Your task to perform on an android device: Go to Google maps Image 0: 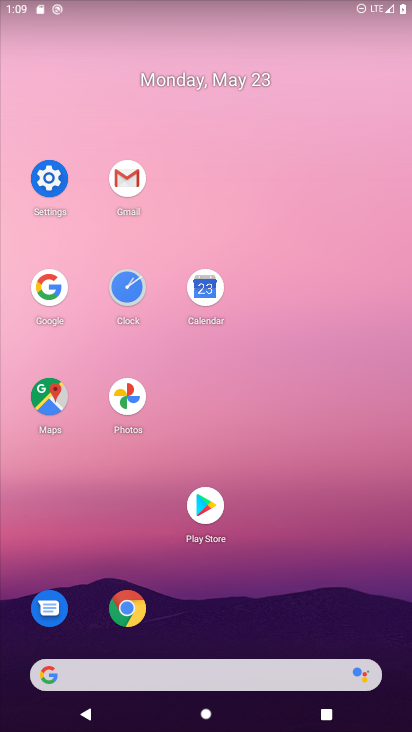
Step 0: click (37, 394)
Your task to perform on an android device: Go to Google maps Image 1: 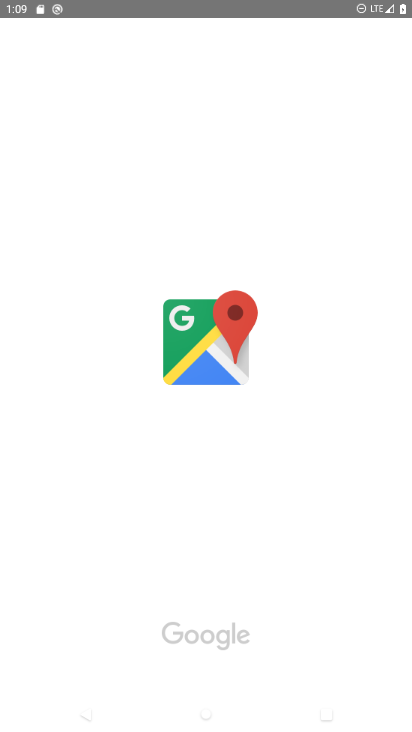
Step 1: task complete